Your task to perform on an android device: turn off location history Image 0: 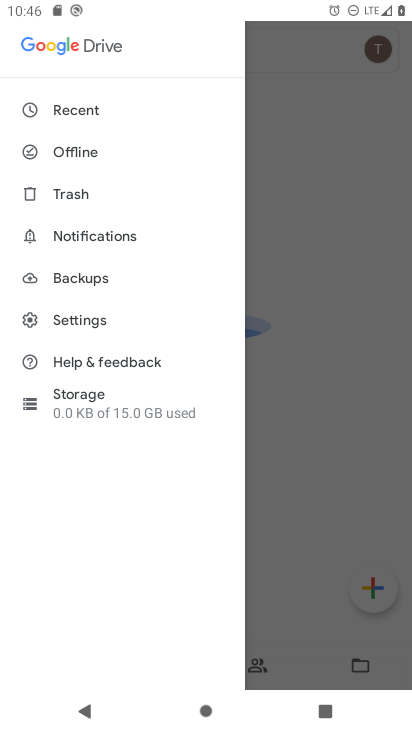
Step 0: press home button
Your task to perform on an android device: turn off location history Image 1: 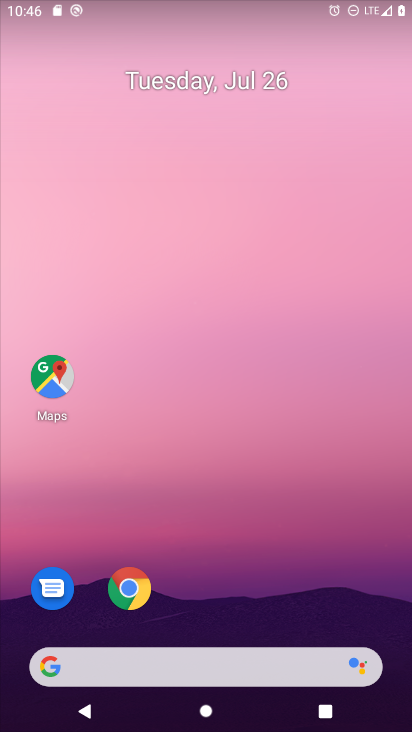
Step 1: drag from (182, 612) to (214, 175)
Your task to perform on an android device: turn off location history Image 2: 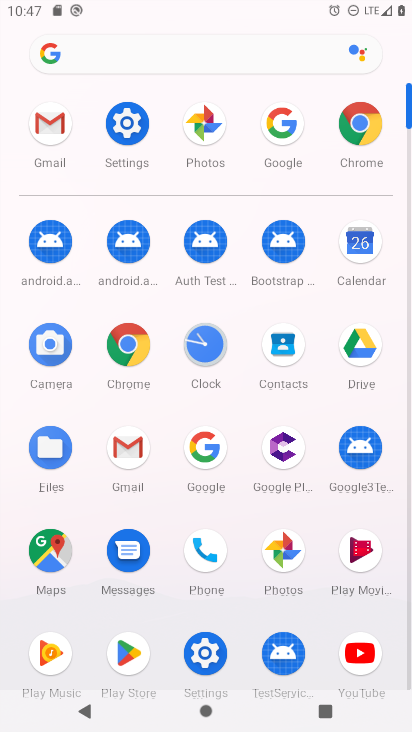
Step 2: drag from (221, 450) to (229, 247)
Your task to perform on an android device: turn off location history Image 3: 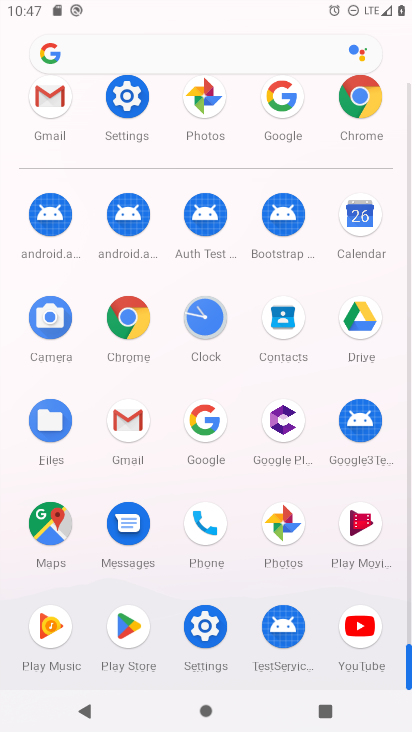
Step 3: click (131, 119)
Your task to perform on an android device: turn off location history Image 4: 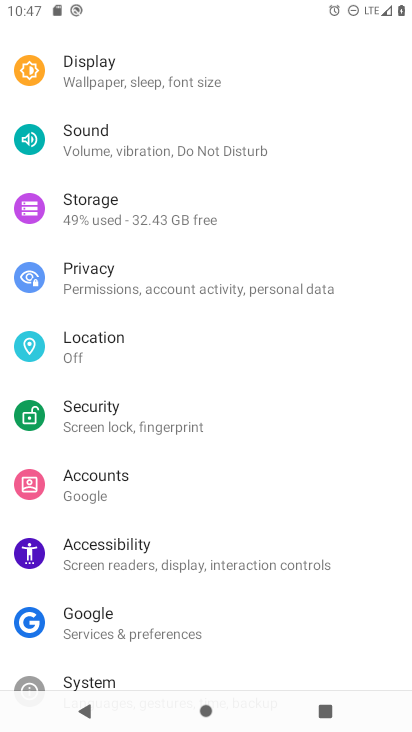
Step 4: click (90, 345)
Your task to perform on an android device: turn off location history Image 5: 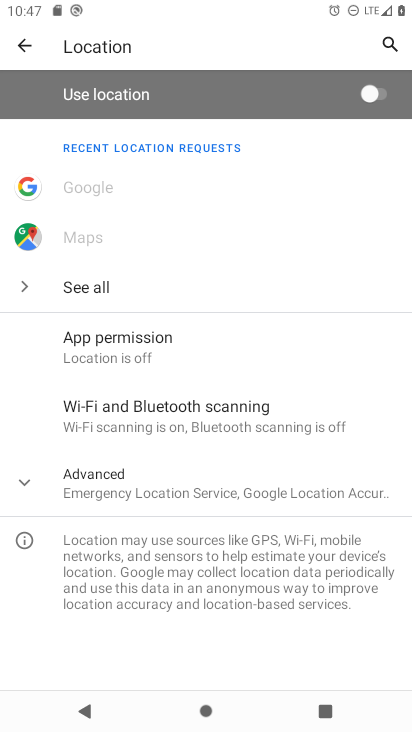
Step 5: click (150, 484)
Your task to perform on an android device: turn off location history Image 6: 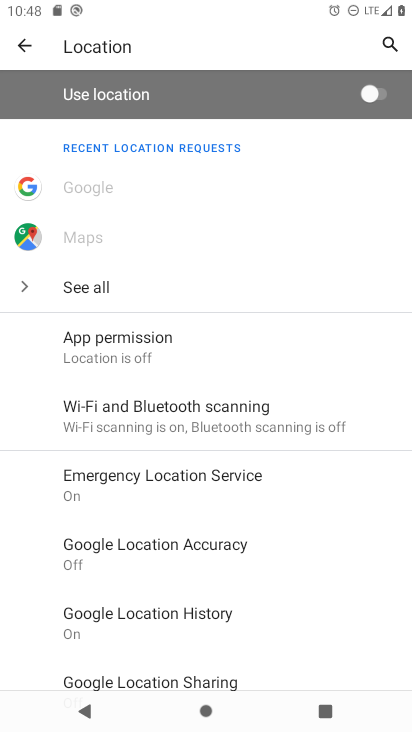
Step 6: click (155, 629)
Your task to perform on an android device: turn off location history Image 7: 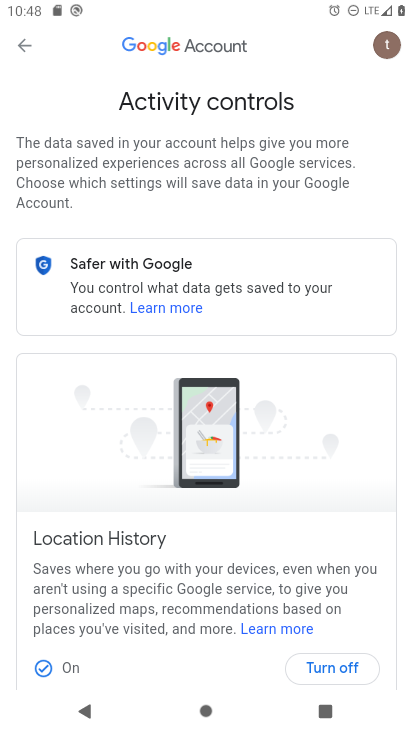
Step 7: click (313, 670)
Your task to perform on an android device: turn off location history Image 8: 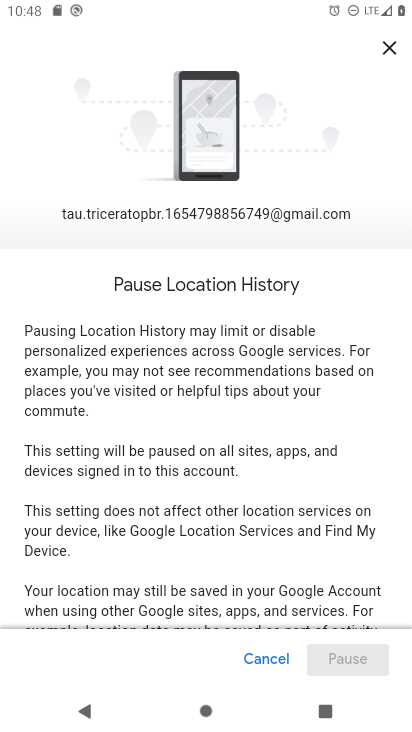
Step 8: drag from (316, 545) to (336, 85)
Your task to perform on an android device: turn off location history Image 9: 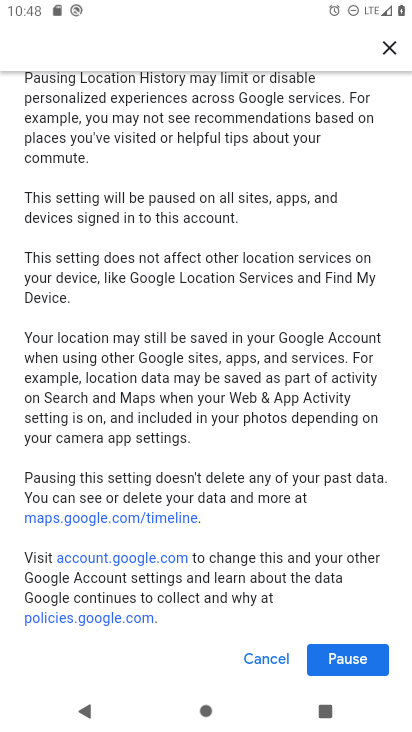
Step 9: click (339, 666)
Your task to perform on an android device: turn off location history Image 10: 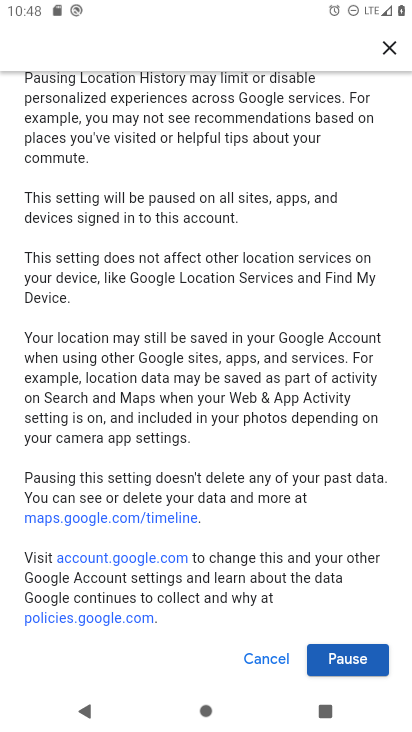
Step 10: click (339, 666)
Your task to perform on an android device: turn off location history Image 11: 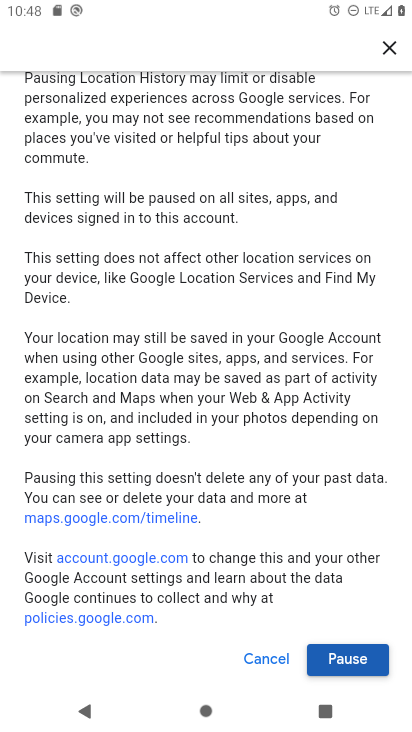
Step 11: click (338, 664)
Your task to perform on an android device: turn off location history Image 12: 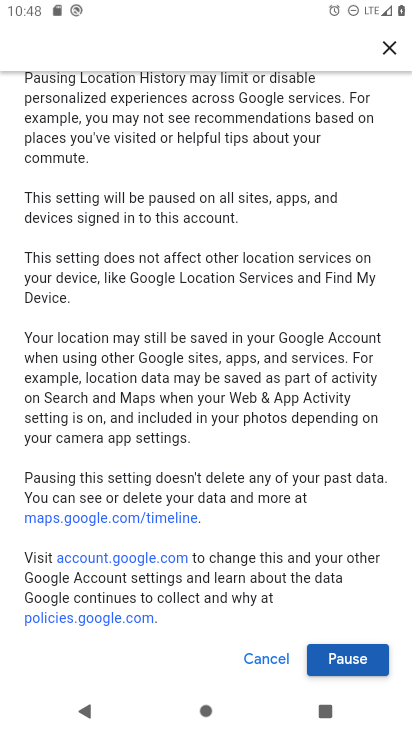
Step 12: click (338, 664)
Your task to perform on an android device: turn off location history Image 13: 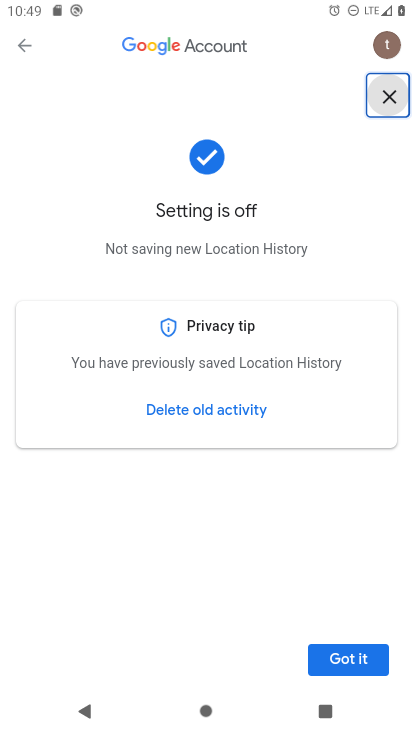
Step 13: task complete